Your task to perform on an android device: toggle location history Image 0: 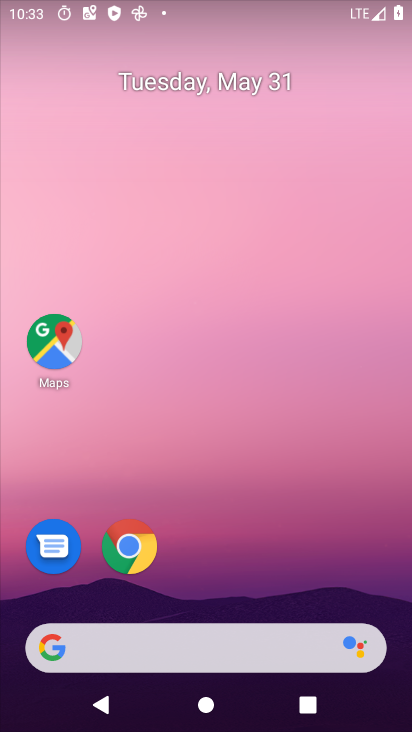
Step 0: drag from (200, 543) to (162, 43)
Your task to perform on an android device: toggle location history Image 1: 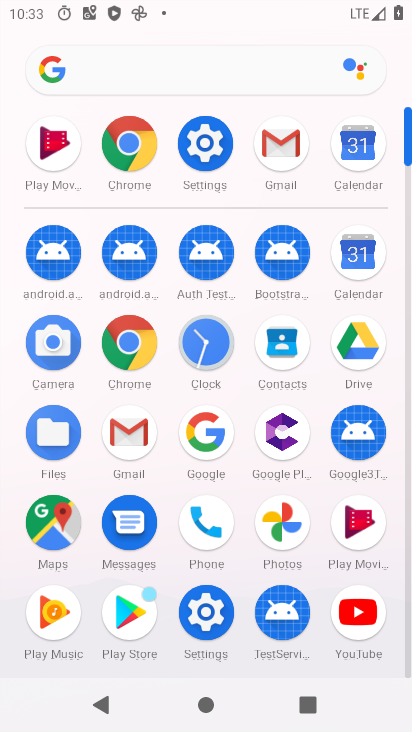
Step 1: click (201, 143)
Your task to perform on an android device: toggle location history Image 2: 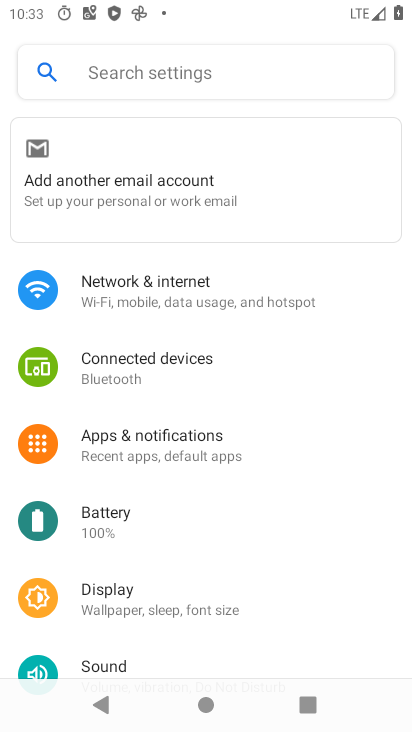
Step 2: drag from (186, 550) to (176, 181)
Your task to perform on an android device: toggle location history Image 3: 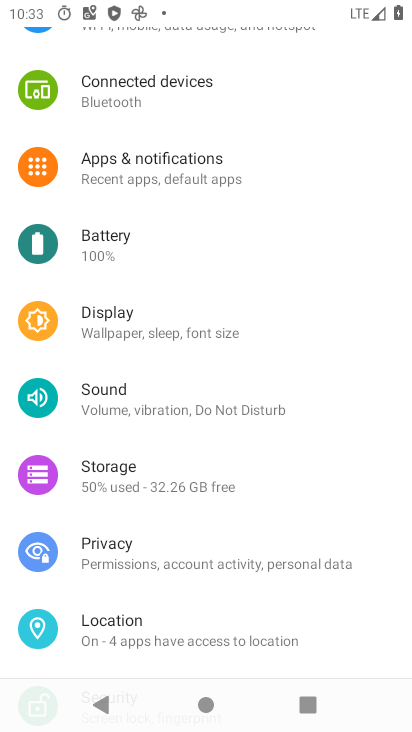
Step 3: click (155, 626)
Your task to perform on an android device: toggle location history Image 4: 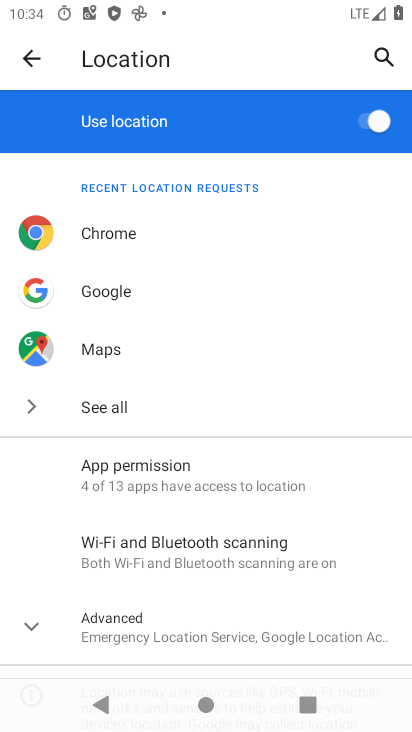
Step 4: click (192, 619)
Your task to perform on an android device: toggle location history Image 5: 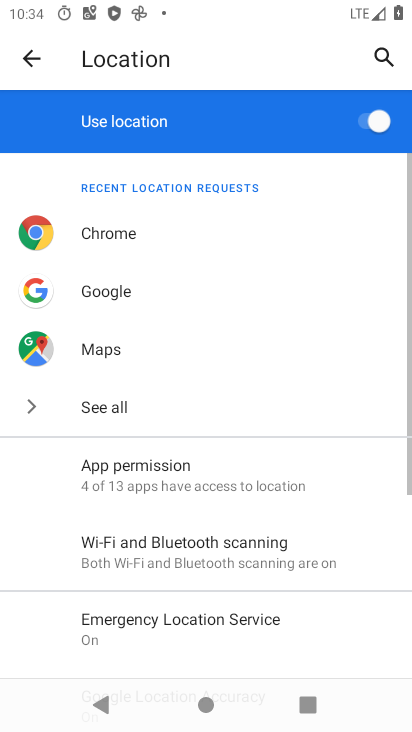
Step 5: drag from (185, 599) to (248, 295)
Your task to perform on an android device: toggle location history Image 6: 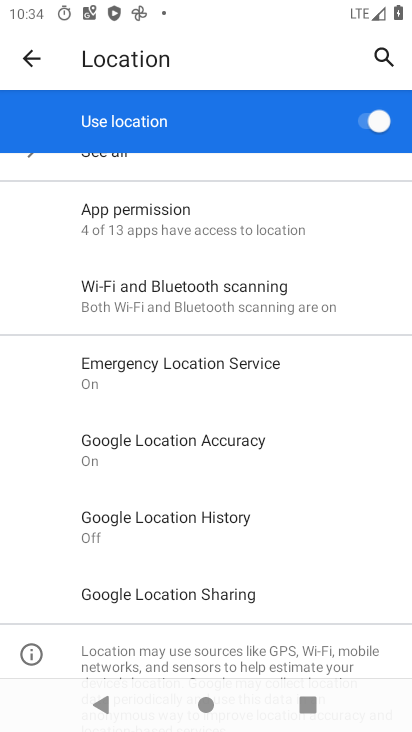
Step 6: click (201, 517)
Your task to perform on an android device: toggle location history Image 7: 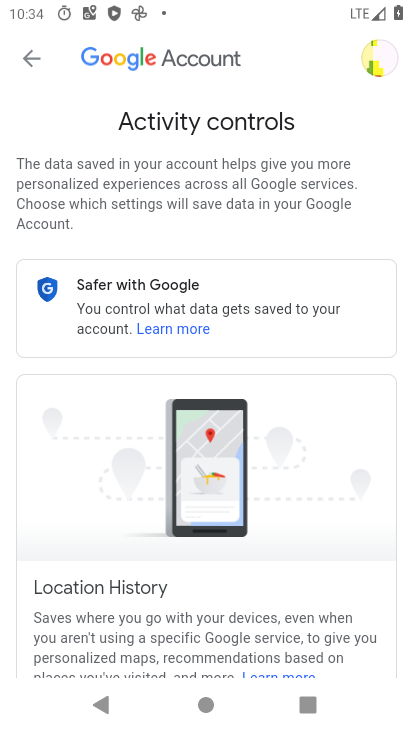
Step 7: drag from (281, 580) to (287, 272)
Your task to perform on an android device: toggle location history Image 8: 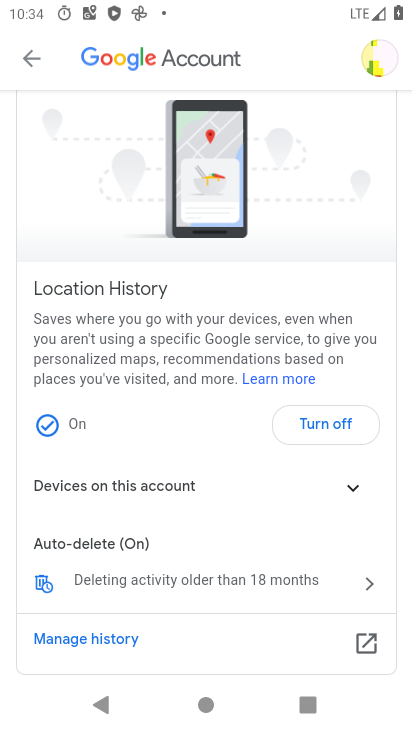
Step 8: click (59, 424)
Your task to perform on an android device: toggle location history Image 9: 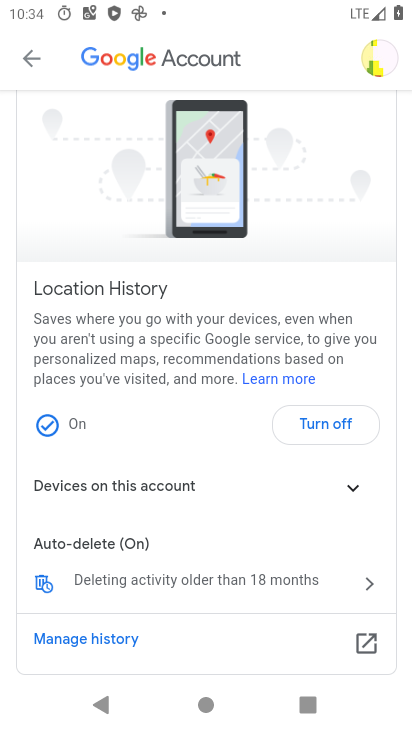
Step 9: click (59, 422)
Your task to perform on an android device: toggle location history Image 10: 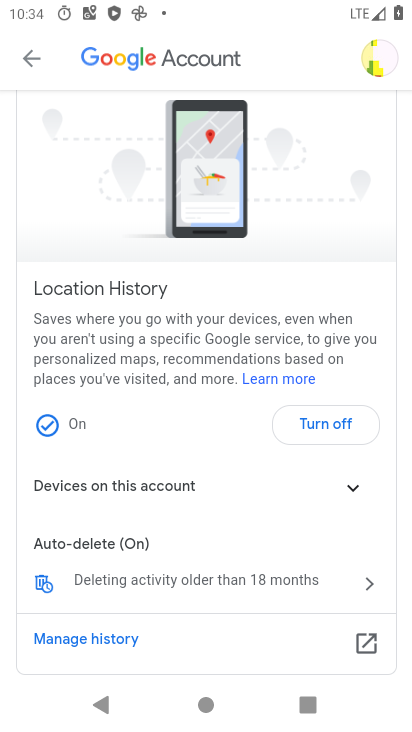
Step 10: click (355, 424)
Your task to perform on an android device: toggle location history Image 11: 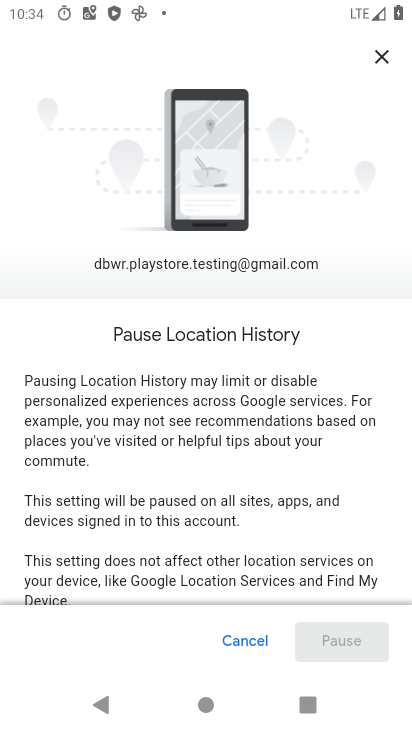
Step 11: click (261, 641)
Your task to perform on an android device: toggle location history Image 12: 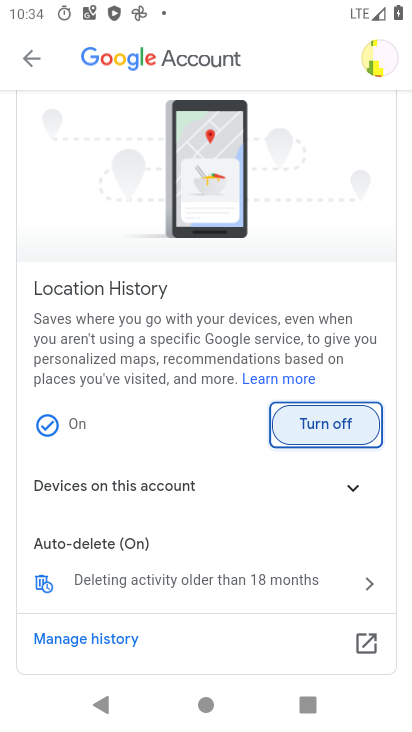
Step 12: task complete